Your task to perform on an android device: turn on notifications settings in the gmail app Image 0: 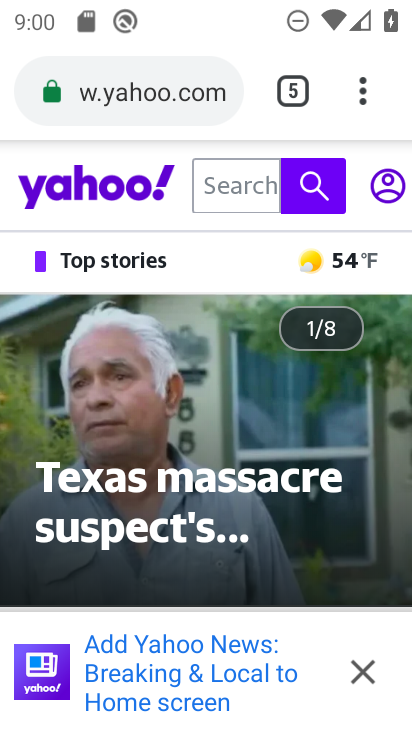
Step 0: press back button
Your task to perform on an android device: turn on notifications settings in the gmail app Image 1: 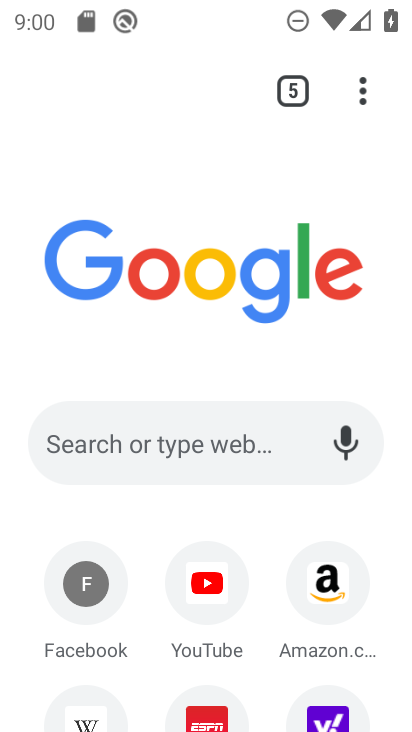
Step 1: press back button
Your task to perform on an android device: turn on notifications settings in the gmail app Image 2: 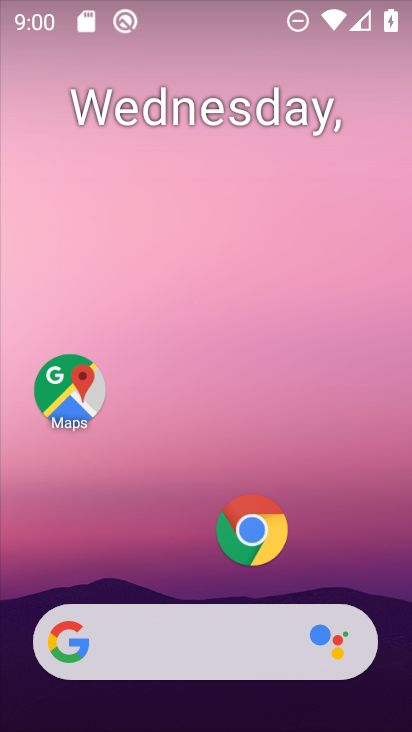
Step 2: drag from (177, 577) to (243, 161)
Your task to perform on an android device: turn on notifications settings in the gmail app Image 3: 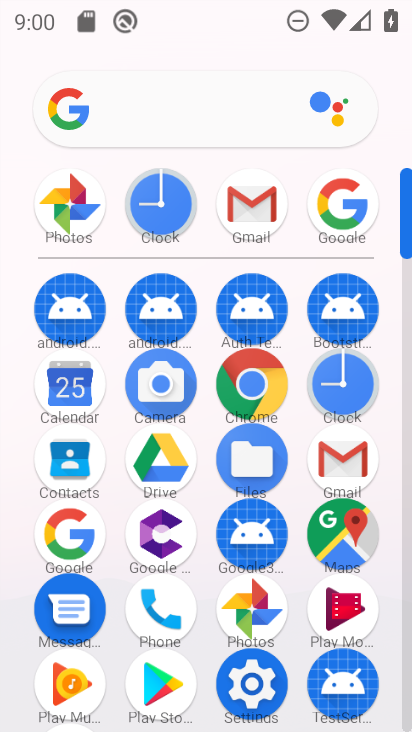
Step 3: click (258, 209)
Your task to perform on an android device: turn on notifications settings in the gmail app Image 4: 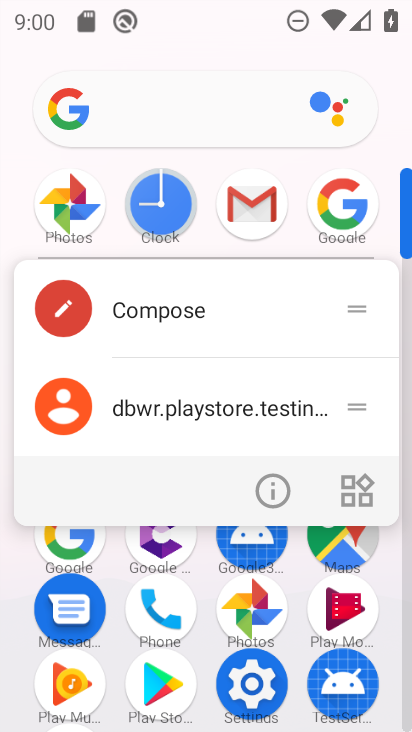
Step 4: click (270, 490)
Your task to perform on an android device: turn on notifications settings in the gmail app Image 5: 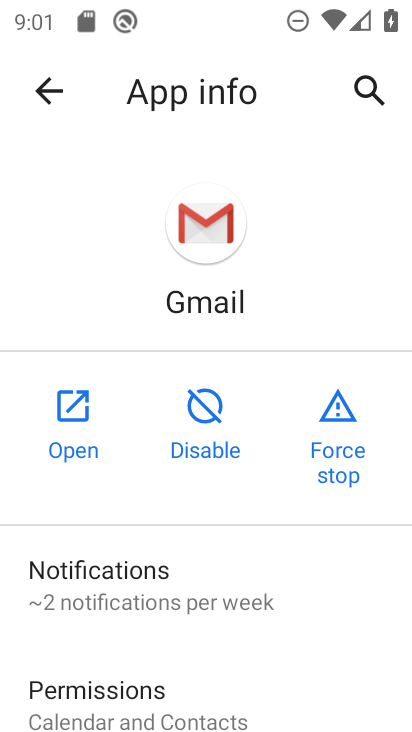
Step 5: click (206, 570)
Your task to perform on an android device: turn on notifications settings in the gmail app Image 6: 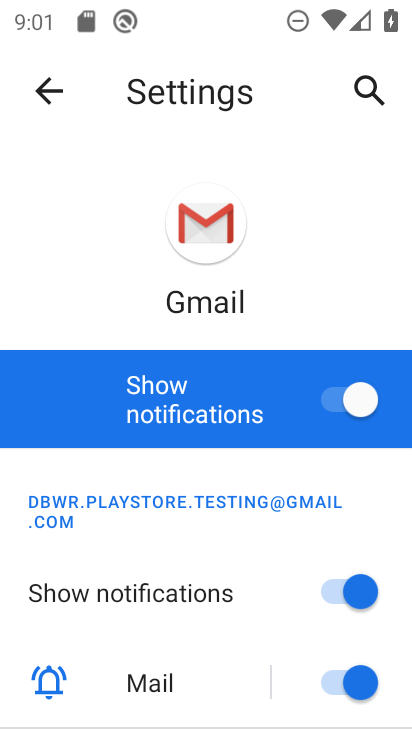
Step 6: task complete